Your task to perform on an android device: Open calendar and show me the first week of next month Image 0: 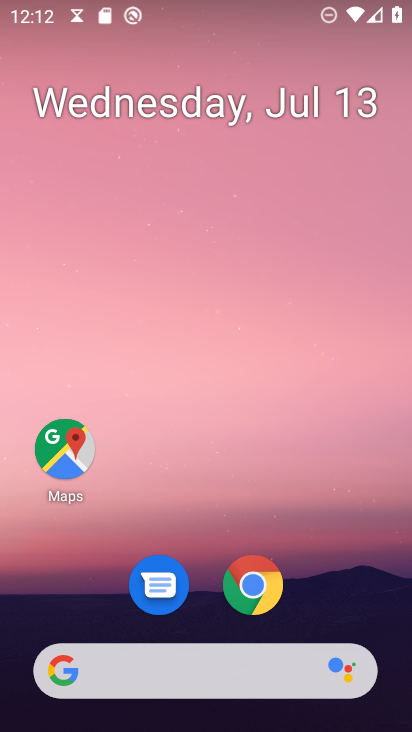
Step 0: drag from (124, 687) to (241, 120)
Your task to perform on an android device: Open calendar and show me the first week of next month Image 1: 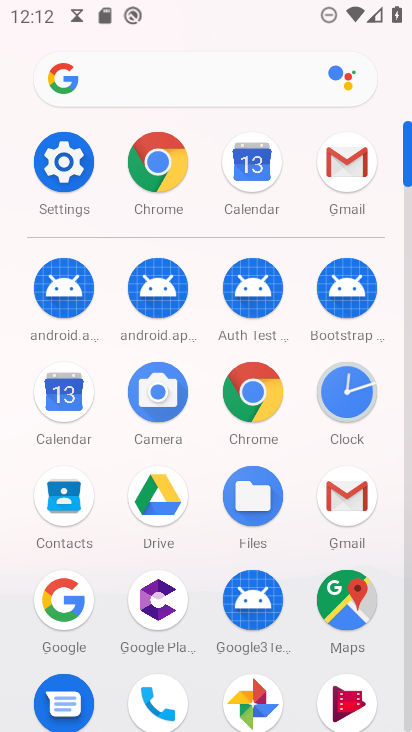
Step 1: click (251, 167)
Your task to perform on an android device: Open calendar and show me the first week of next month Image 2: 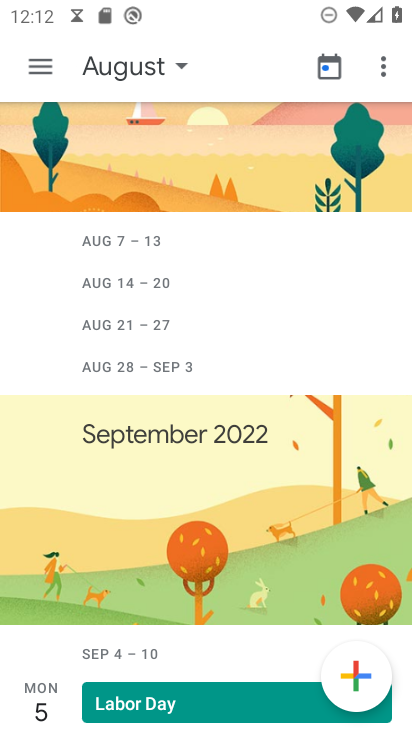
Step 2: click (128, 71)
Your task to perform on an android device: Open calendar and show me the first week of next month Image 3: 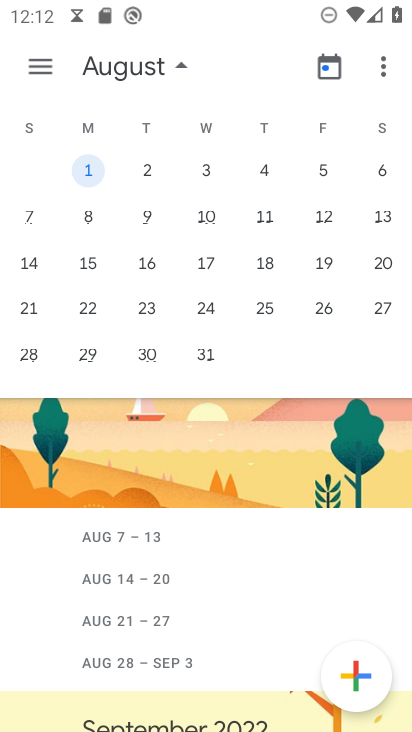
Step 3: click (90, 168)
Your task to perform on an android device: Open calendar and show me the first week of next month Image 4: 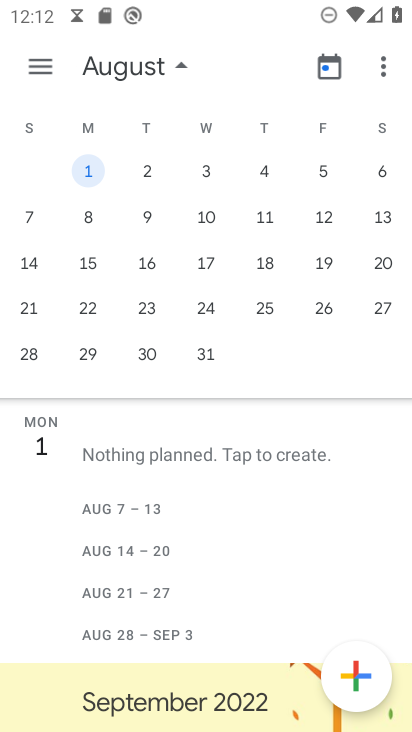
Step 4: click (37, 66)
Your task to perform on an android device: Open calendar and show me the first week of next month Image 5: 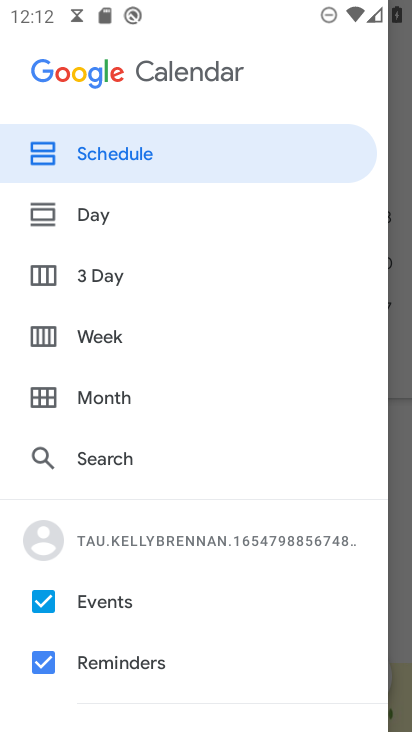
Step 5: click (101, 339)
Your task to perform on an android device: Open calendar and show me the first week of next month Image 6: 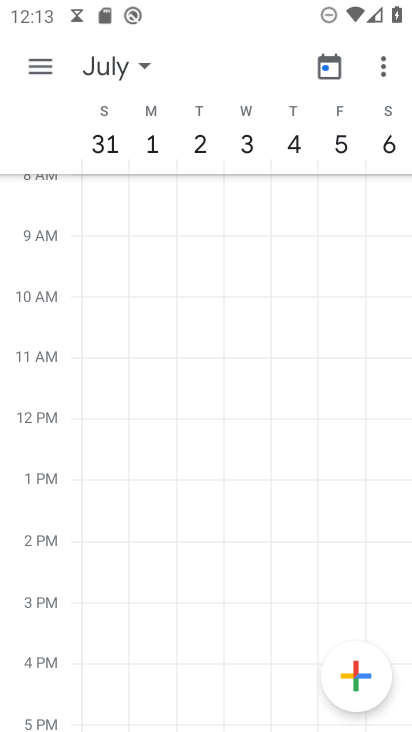
Step 6: task complete